Your task to perform on an android device: Open Chrome and go to settings Image 0: 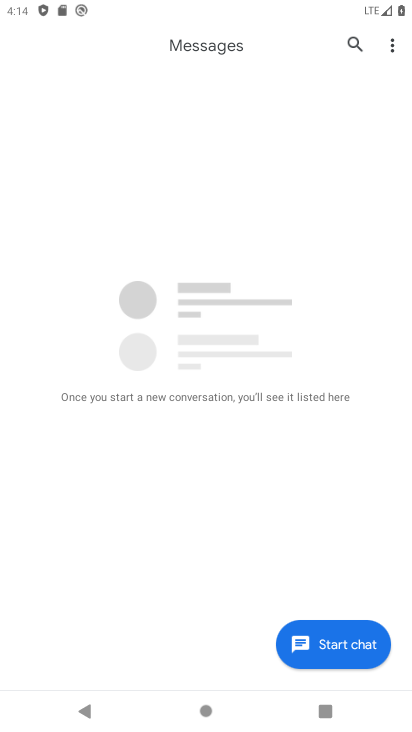
Step 0: press back button
Your task to perform on an android device: Open Chrome and go to settings Image 1: 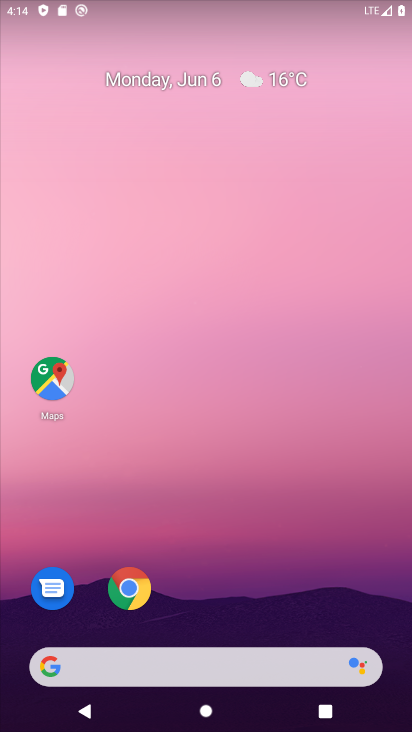
Step 1: drag from (270, 706) to (217, 334)
Your task to perform on an android device: Open Chrome and go to settings Image 2: 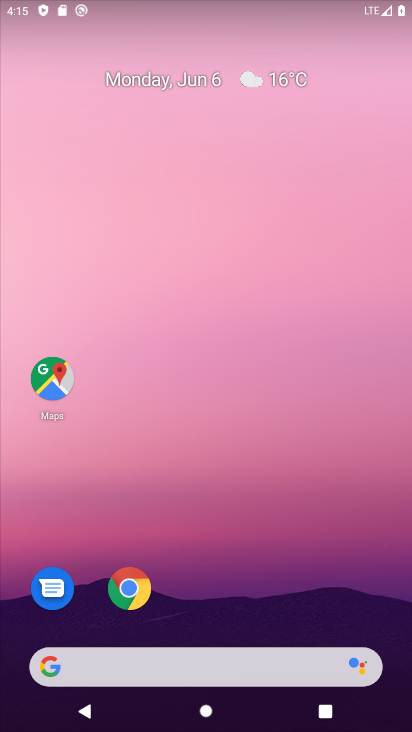
Step 2: drag from (212, 678) to (160, 493)
Your task to perform on an android device: Open Chrome and go to settings Image 3: 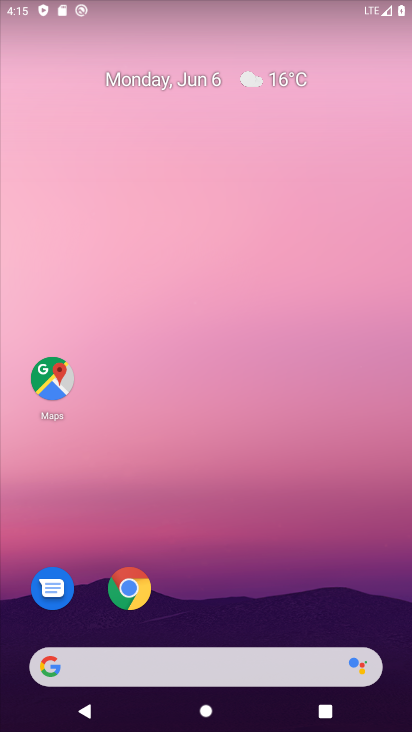
Step 3: drag from (253, 395) to (204, 145)
Your task to perform on an android device: Open Chrome and go to settings Image 4: 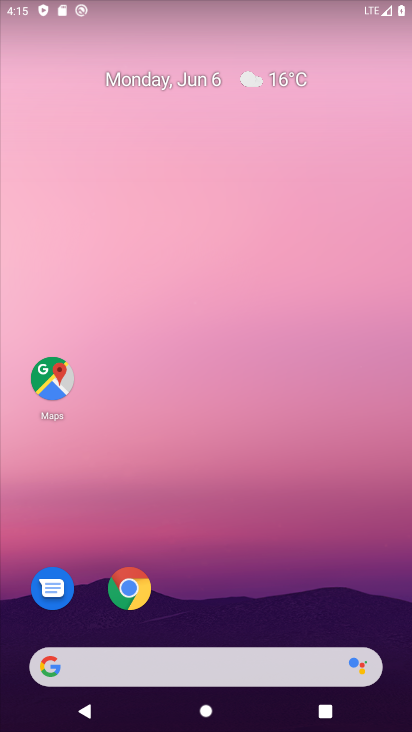
Step 4: drag from (221, 160) to (207, 64)
Your task to perform on an android device: Open Chrome and go to settings Image 5: 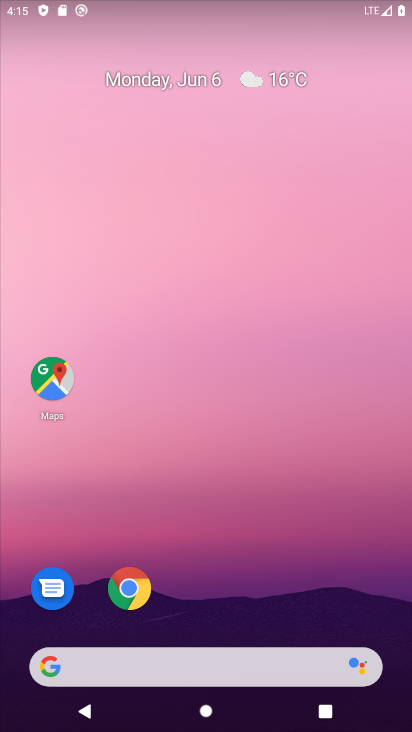
Step 5: drag from (267, 700) to (201, 146)
Your task to perform on an android device: Open Chrome and go to settings Image 6: 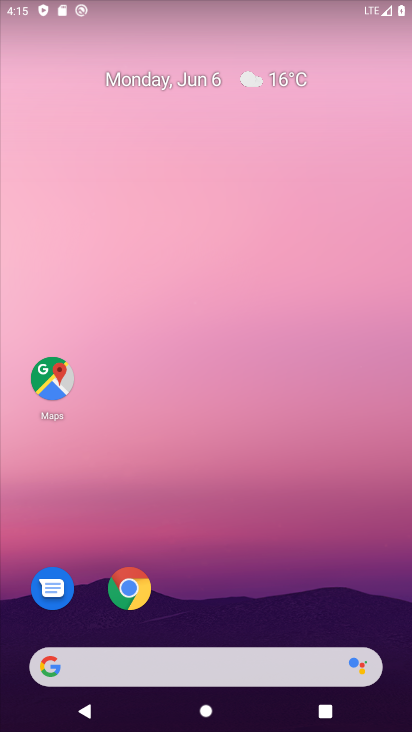
Step 6: drag from (293, 473) to (291, 340)
Your task to perform on an android device: Open Chrome and go to settings Image 7: 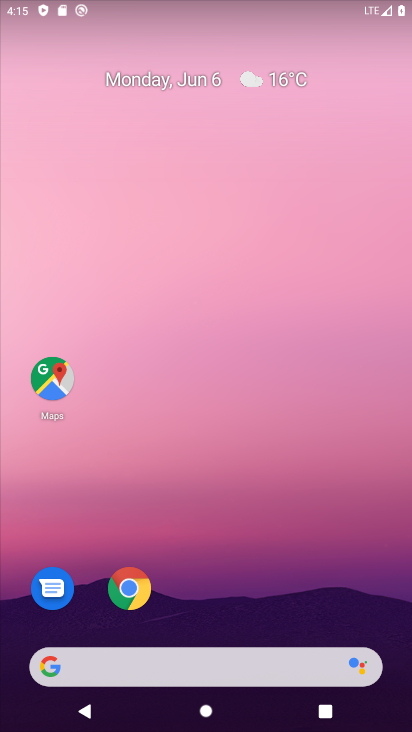
Step 7: drag from (273, 583) to (229, 112)
Your task to perform on an android device: Open Chrome and go to settings Image 8: 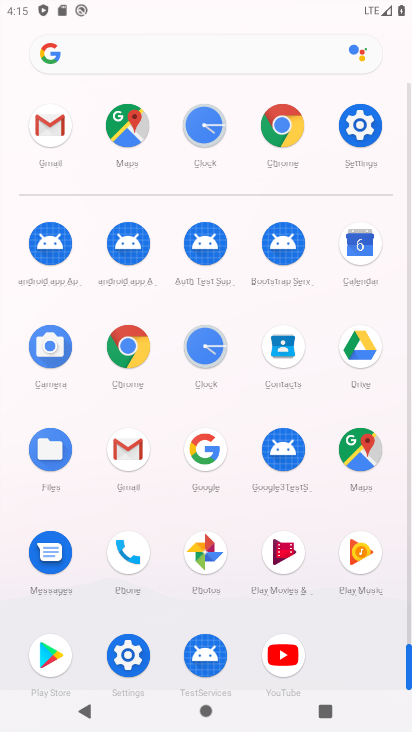
Step 8: click (366, 127)
Your task to perform on an android device: Open Chrome and go to settings Image 9: 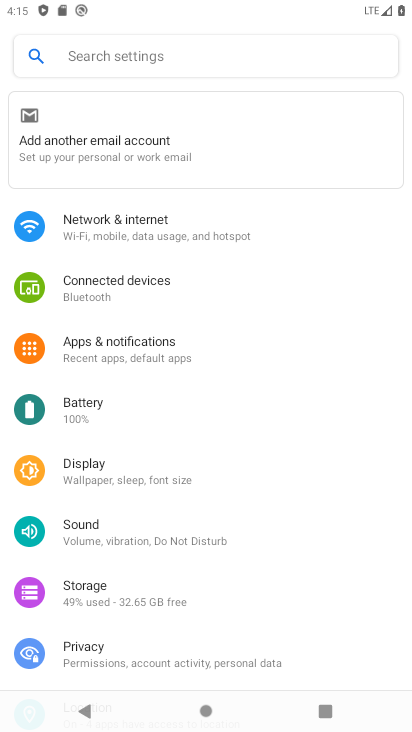
Step 9: press back button
Your task to perform on an android device: Open Chrome and go to settings Image 10: 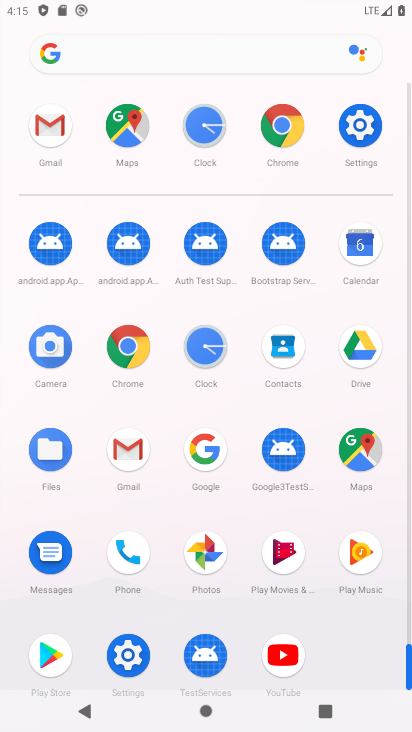
Step 10: click (345, 131)
Your task to perform on an android device: Open Chrome and go to settings Image 11: 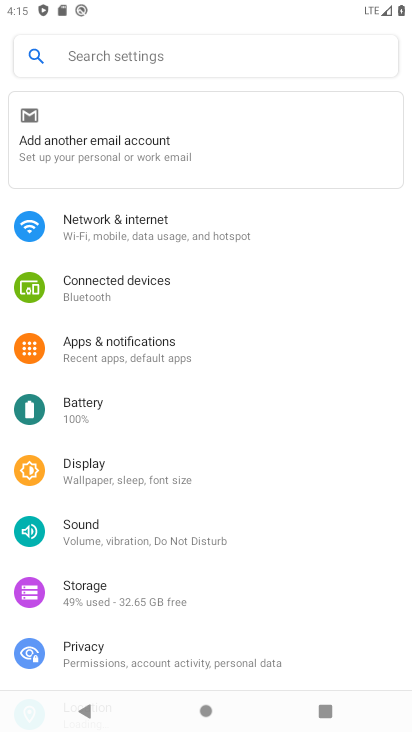
Step 11: press back button
Your task to perform on an android device: Open Chrome and go to settings Image 12: 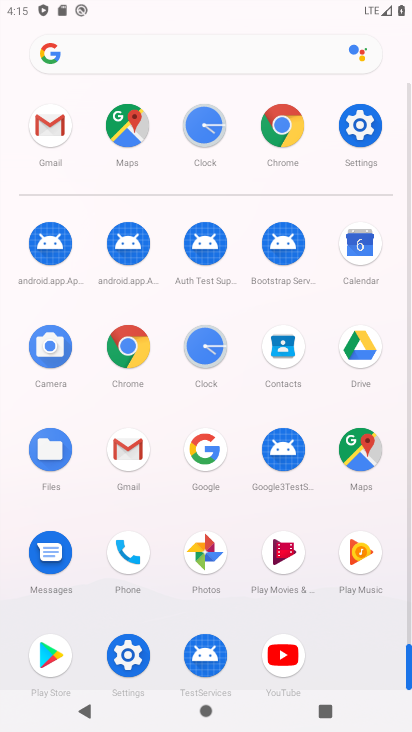
Step 12: click (273, 119)
Your task to perform on an android device: Open Chrome and go to settings Image 13: 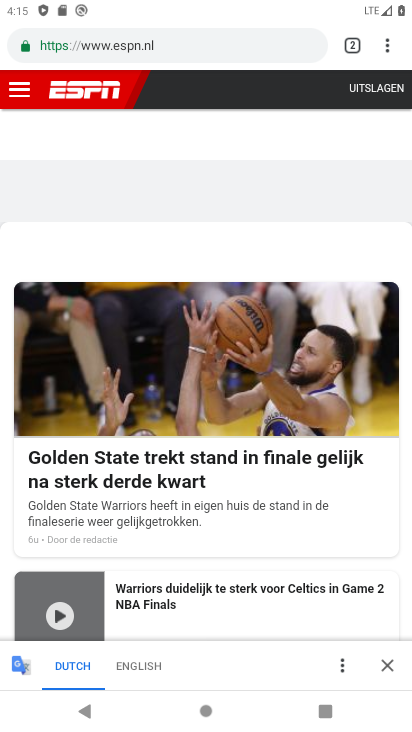
Step 13: drag from (388, 44) to (210, 600)
Your task to perform on an android device: Open Chrome and go to settings Image 14: 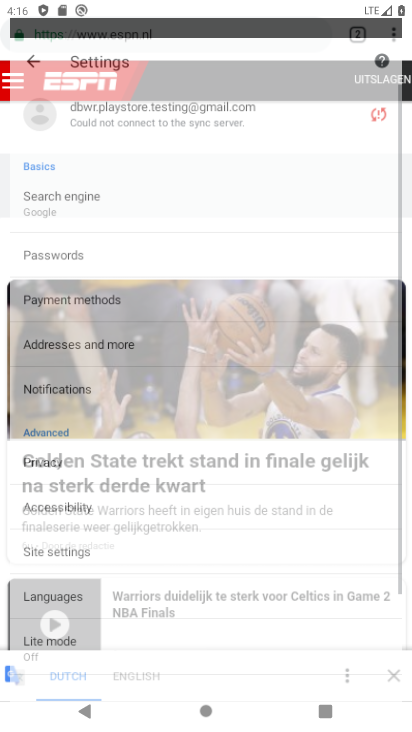
Step 14: click (216, 597)
Your task to perform on an android device: Open Chrome and go to settings Image 15: 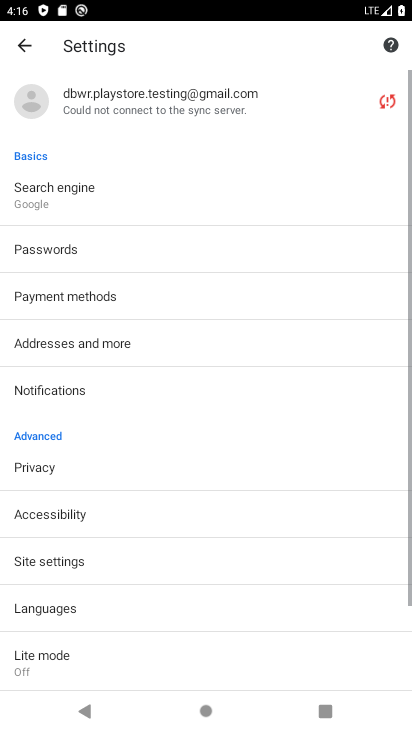
Step 15: click (216, 594)
Your task to perform on an android device: Open Chrome and go to settings Image 16: 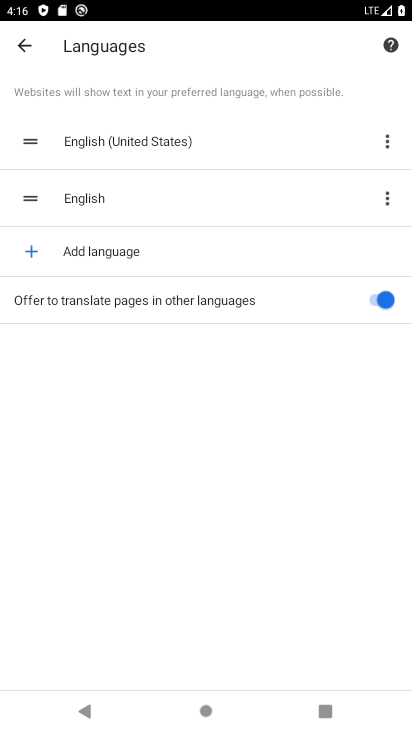
Step 16: click (29, 43)
Your task to perform on an android device: Open Chrome and go to settings Image 17: 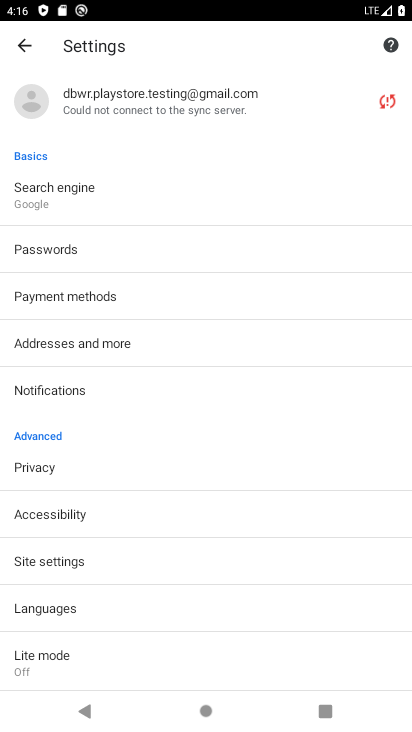
Step 17: click (42, 573)
Your task to perform on an android device: Open Chrome and go to settings Image 18: 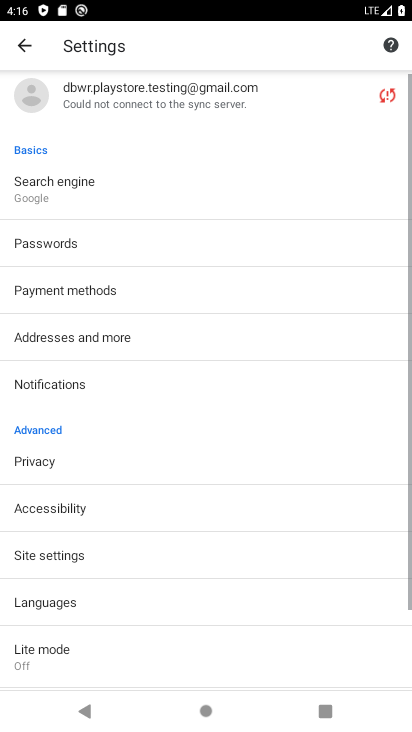
Step 18: click (40, 558)
Your task to perform on an android device: Open Chrome and go to settings Image 19: 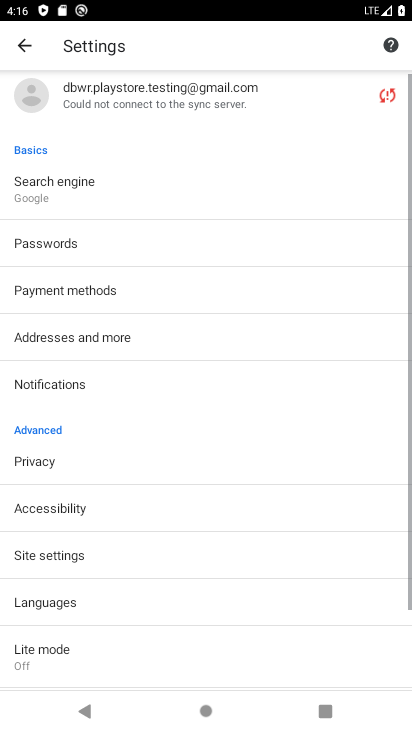
Step 19: click (39, 555)
Your task to perform on an android device: Open Chrome and go to settings Image 20: 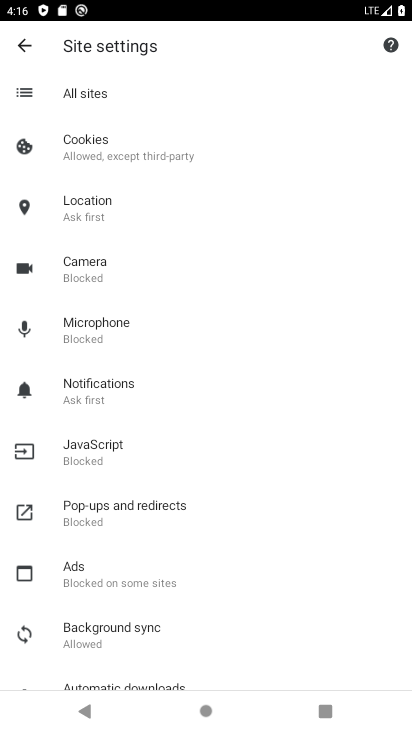
Step 20: task complete